Your task to perform on an android device: change the clock display to analog Image 0: 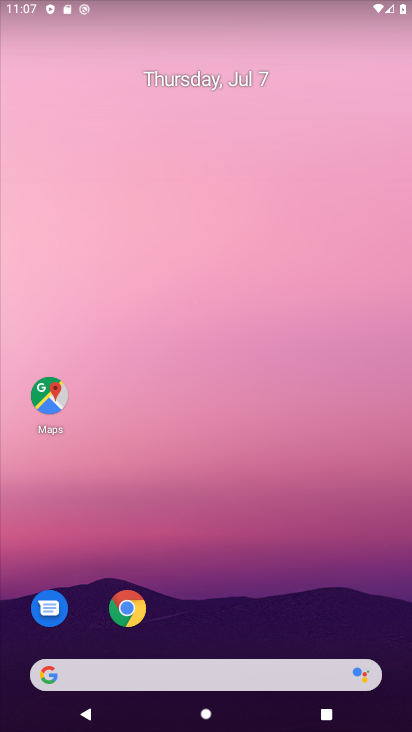
Step 0: drag from (282, 594) to (265, 232)
Your task to perform on an android device: change the clock display to analog Image 1: 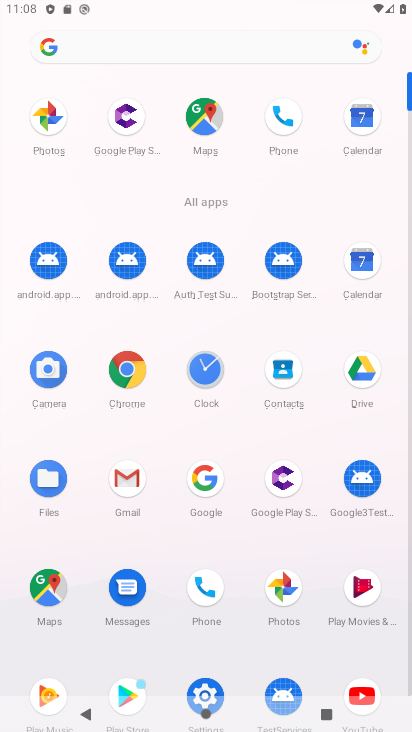
Step 1: click (215, 372)
Your task to perform on an android device: change the clock display to analog Image 2: 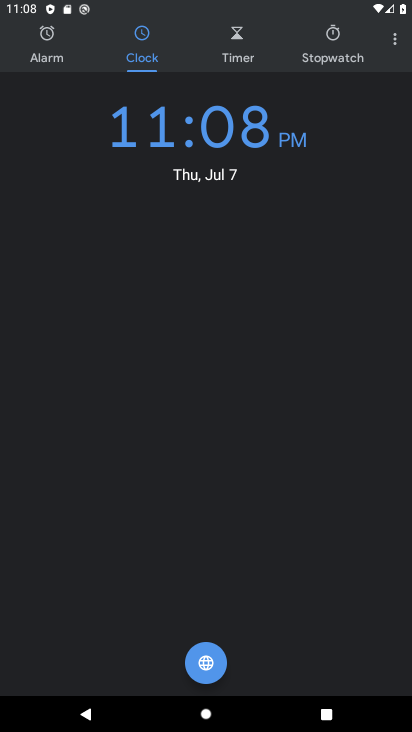
Step 2: click (387, 48)
Your task to perform on an android device: change the clock display to analog Image 3: 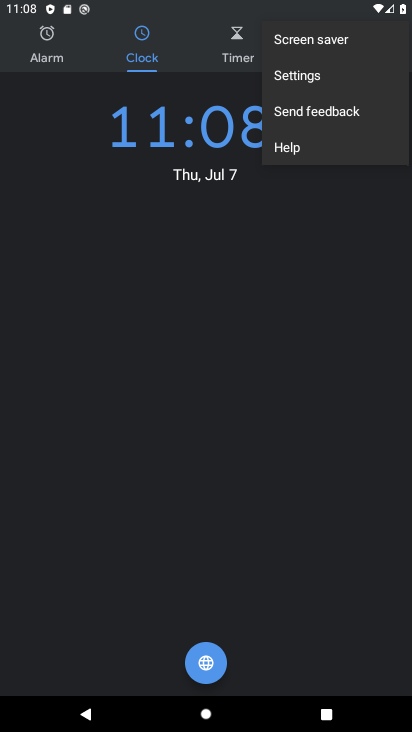
Step 3: click (299, 85)
Your task to perform on an android device: change the clock display to analog Image 4: 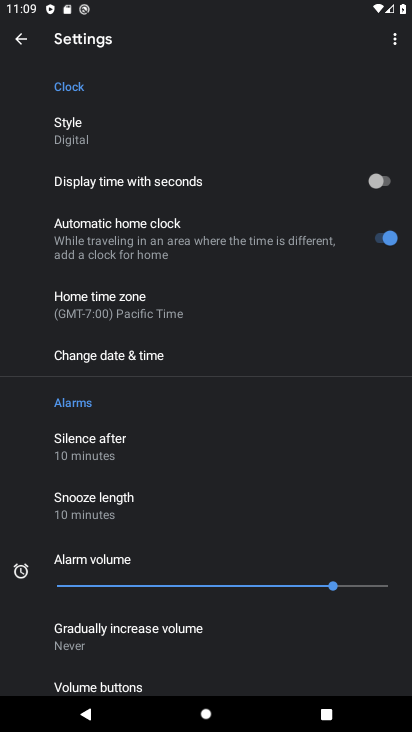
Step 4: click (202, 352)
Your task to perform on an android device: change the clock display to analog Image 5: 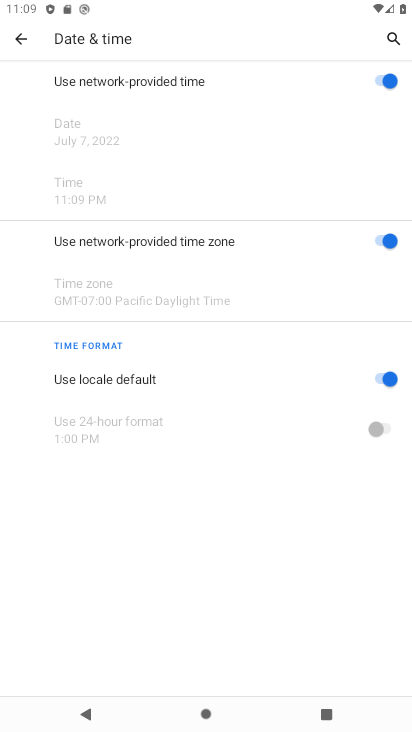
Step 5: click (371, 374)
Your task to perform on an android device: change the clock display to analog Image 6: 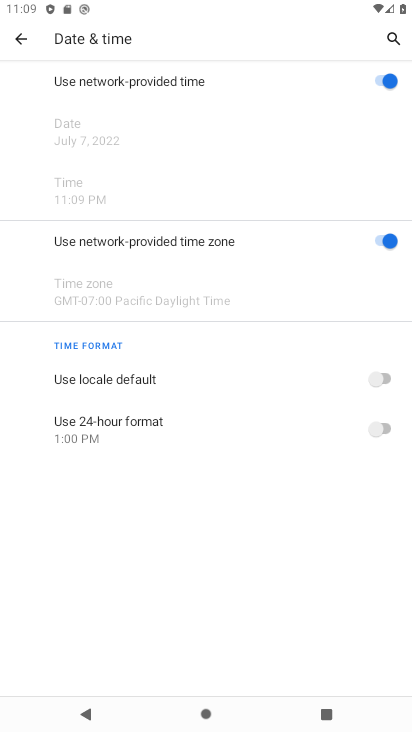
Step 6: click (33, 41)
Your task to perform on an android device: change the clock display to analog Image 7: 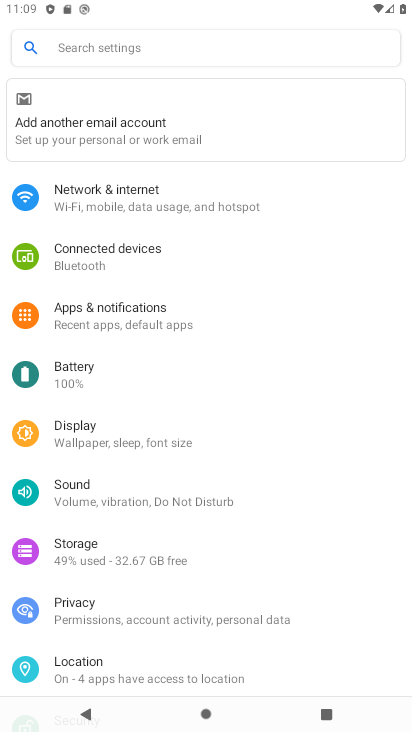
Step 7: press home button
Your task to perform on an android device: change the clock display to analog Image 8: 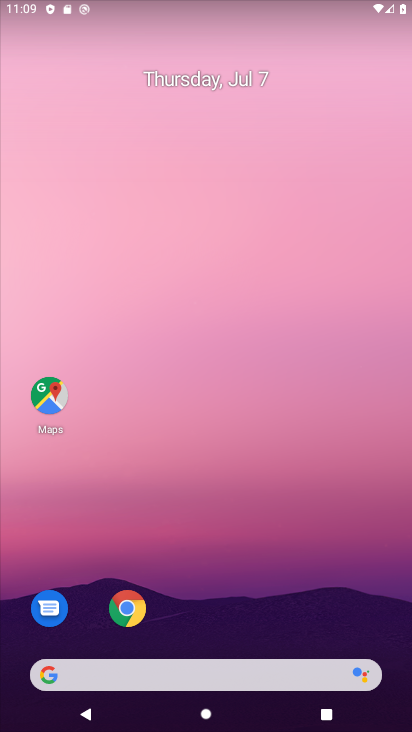
Step 8: drag from (294, 629) to (234, 67)
Your task to perform on an android device: change the clock display to analog Image 9: 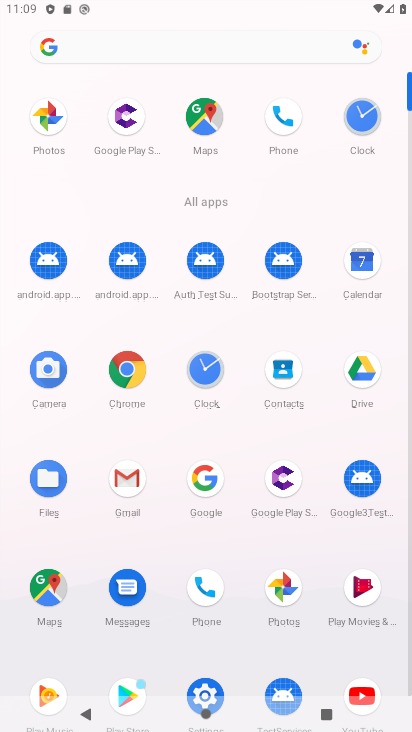
Step 9: click (360, 133)
Your task to perform on an android device: change the clock display to analog Image 10: 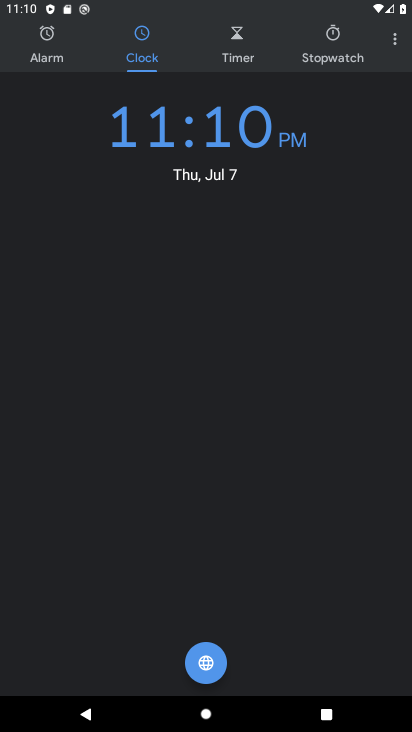
Step 10: click (386, 49)
Your task to perform on an android device: change the clock display to analog Image 11: 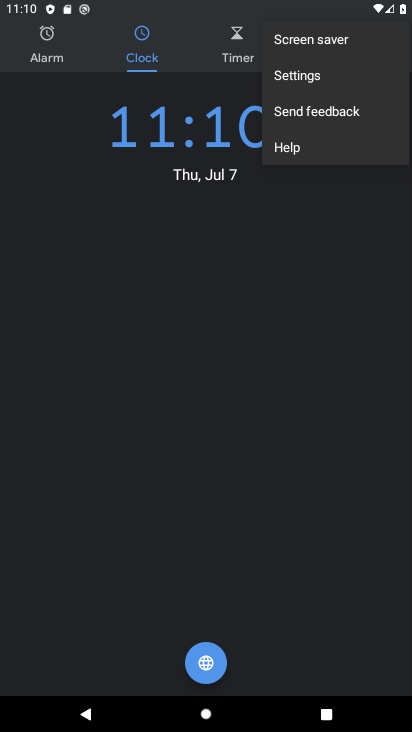
Step 11: click (331, 89)
Your task to perform on an android device: change the clock display to analog Image 12: 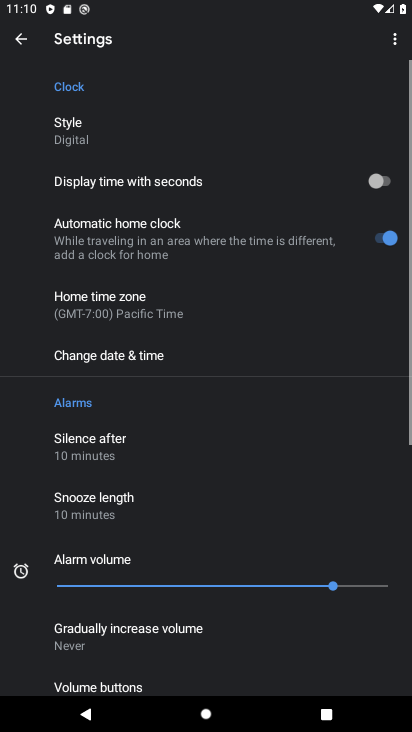
Step 12: click (186, 137)
Your task to perform on an android device: change the clock display to analog Image 13: 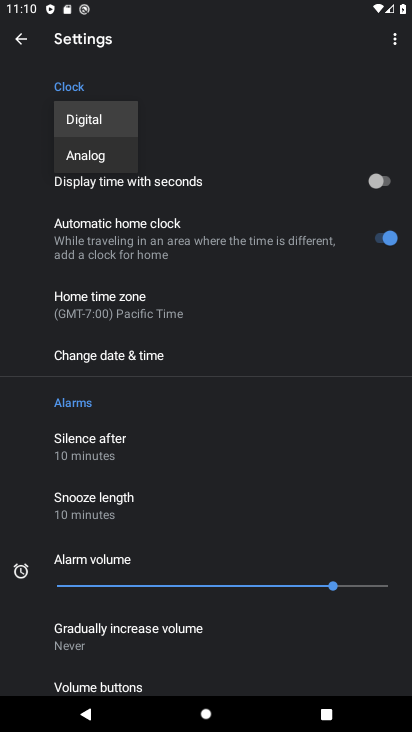
Step 13: click (124, 156)
Your task to perform on an android device: change the clock display to analog Image 14: 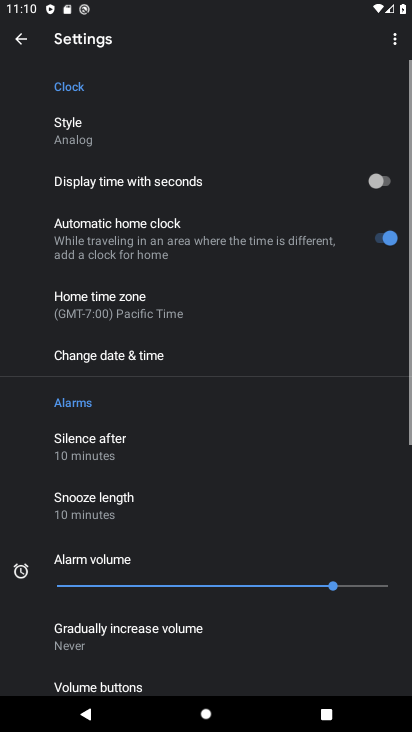
Step 14: task complete